Your task to perform on an android device: Go to Google maps Image 0: 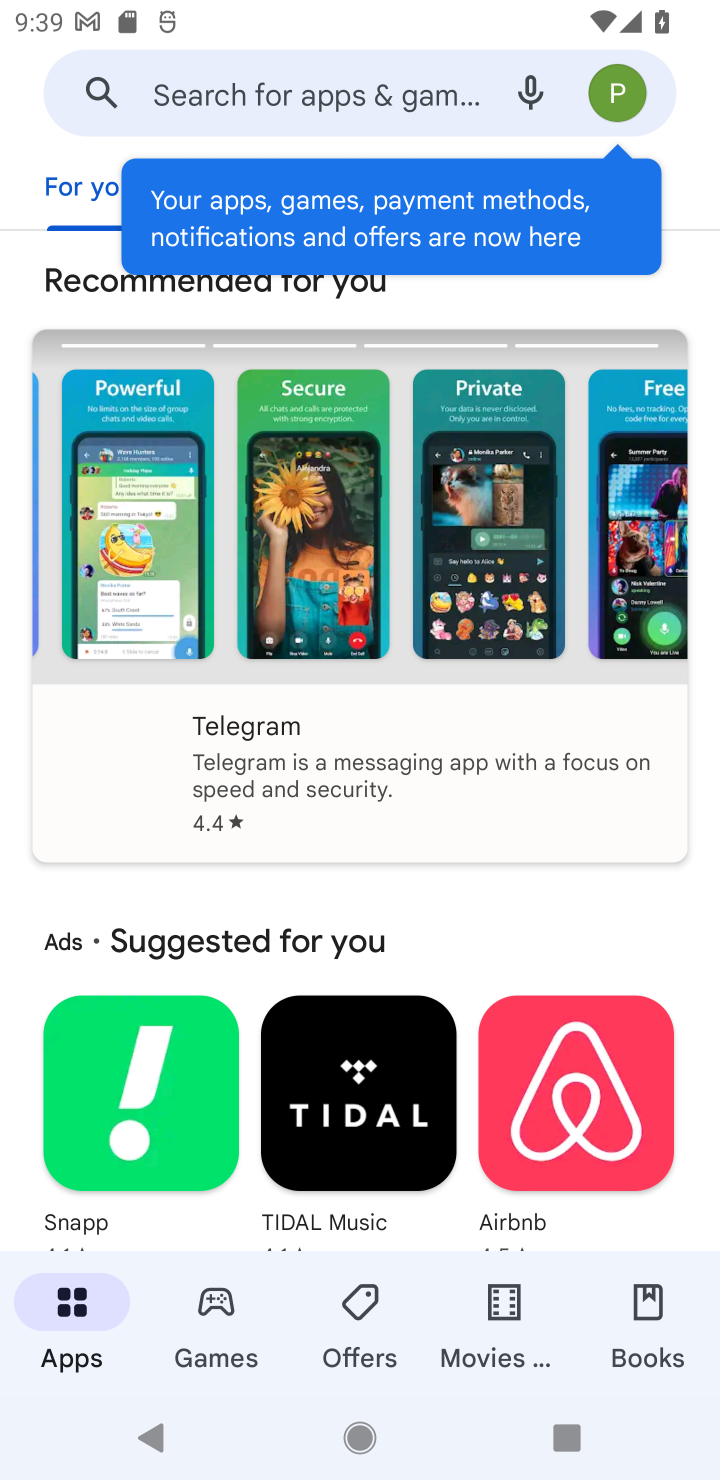
Step 0: press back button
Your task to perform on an android device: Go to Google maps Image 1: 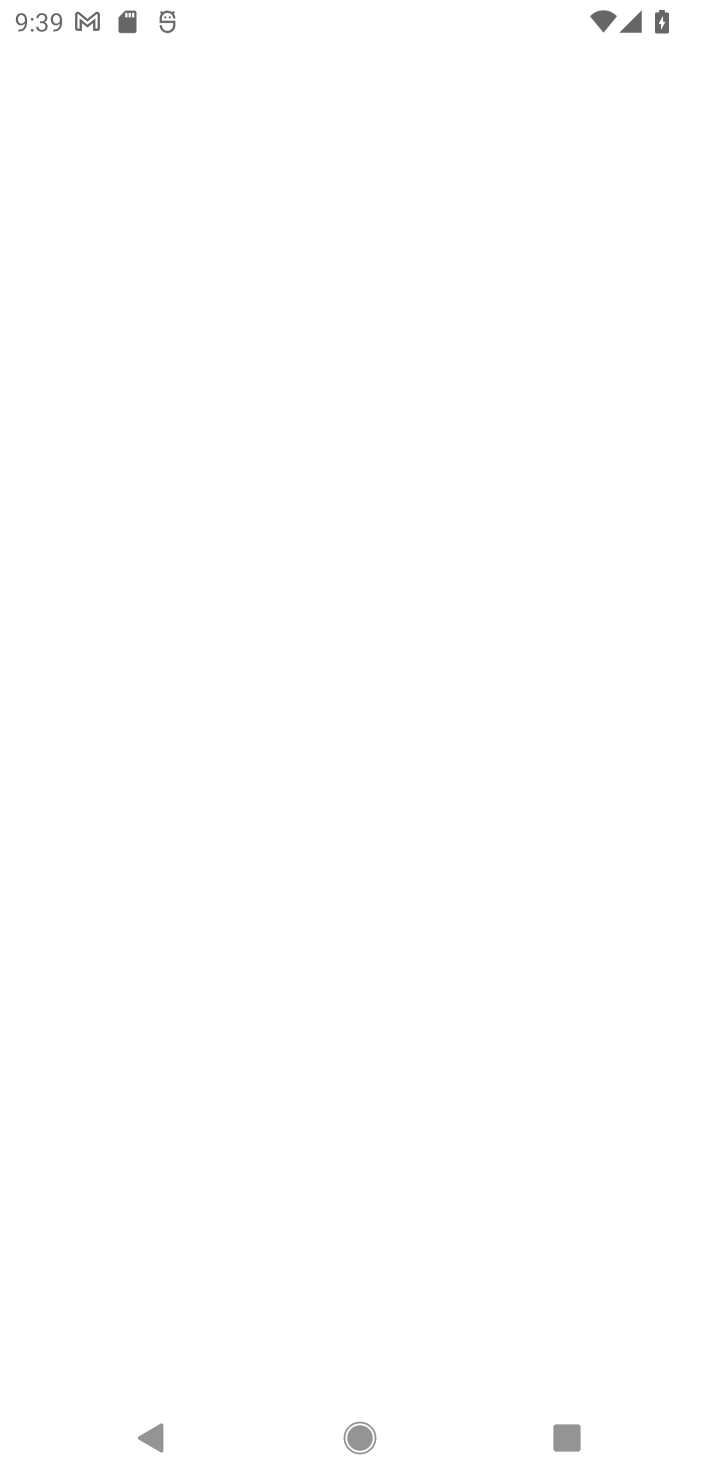
Step 1: press back button
Your task to perform on an android device: Go to Google maps Image 2: 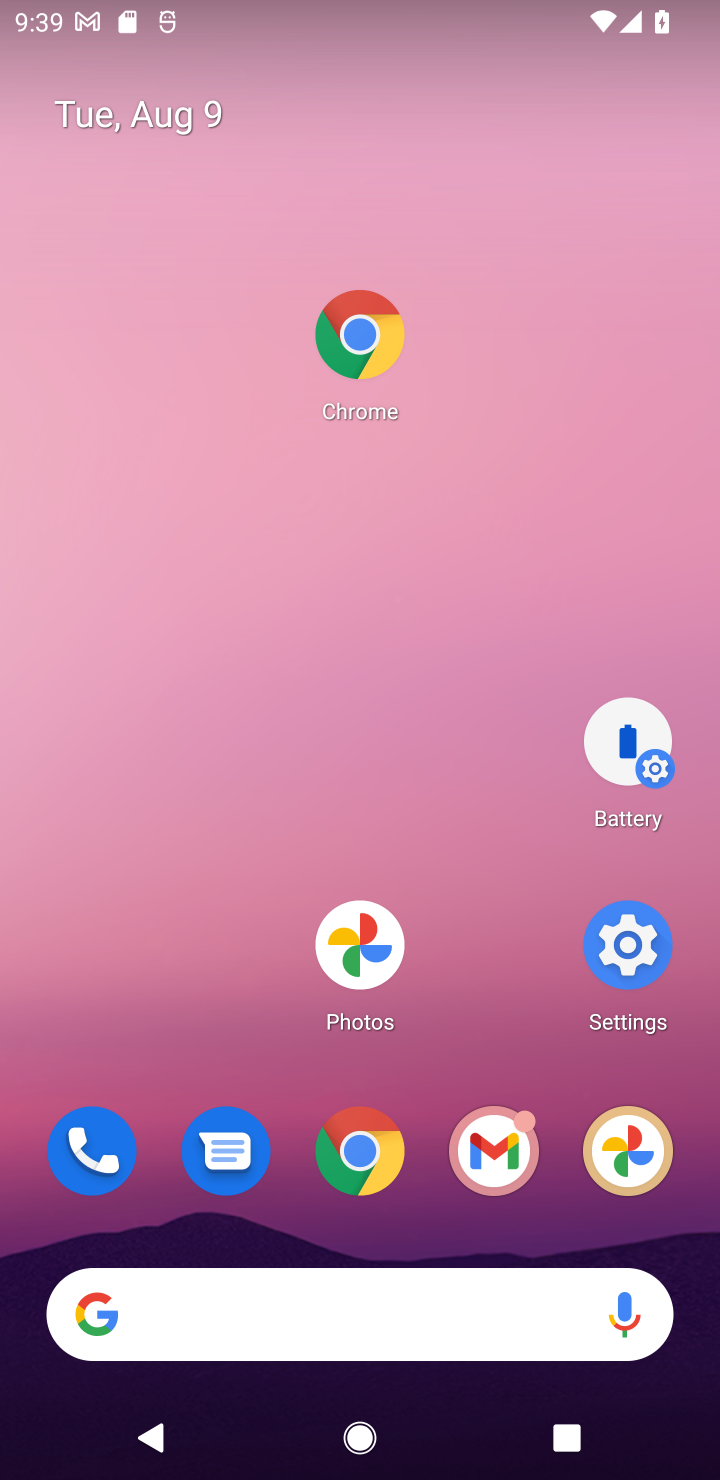
Step 2: press back button
Your task to perform on an android device: Go to Google maps Image 3: 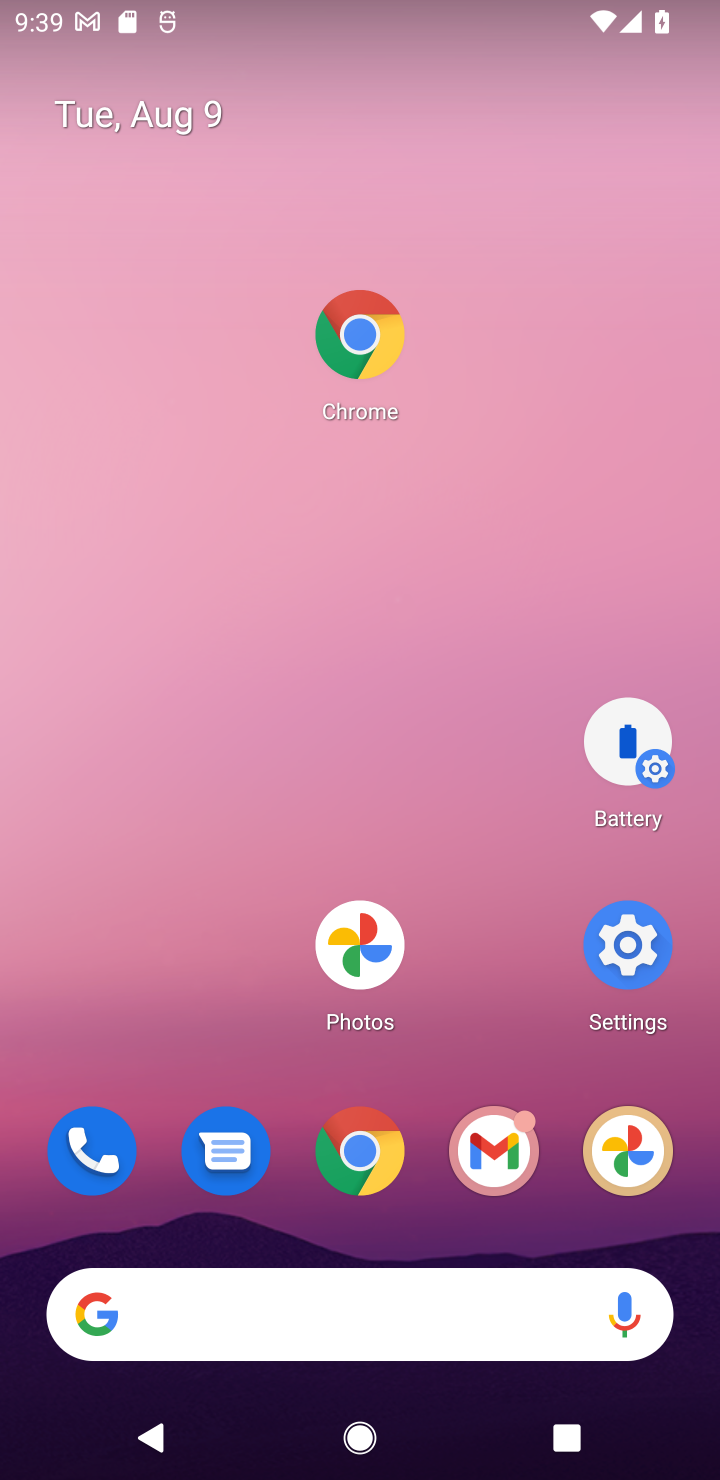
Step 3: drag from (212, 155) to (363, 290)
Your task to perform on an android device: Go to Google maps Image 4: 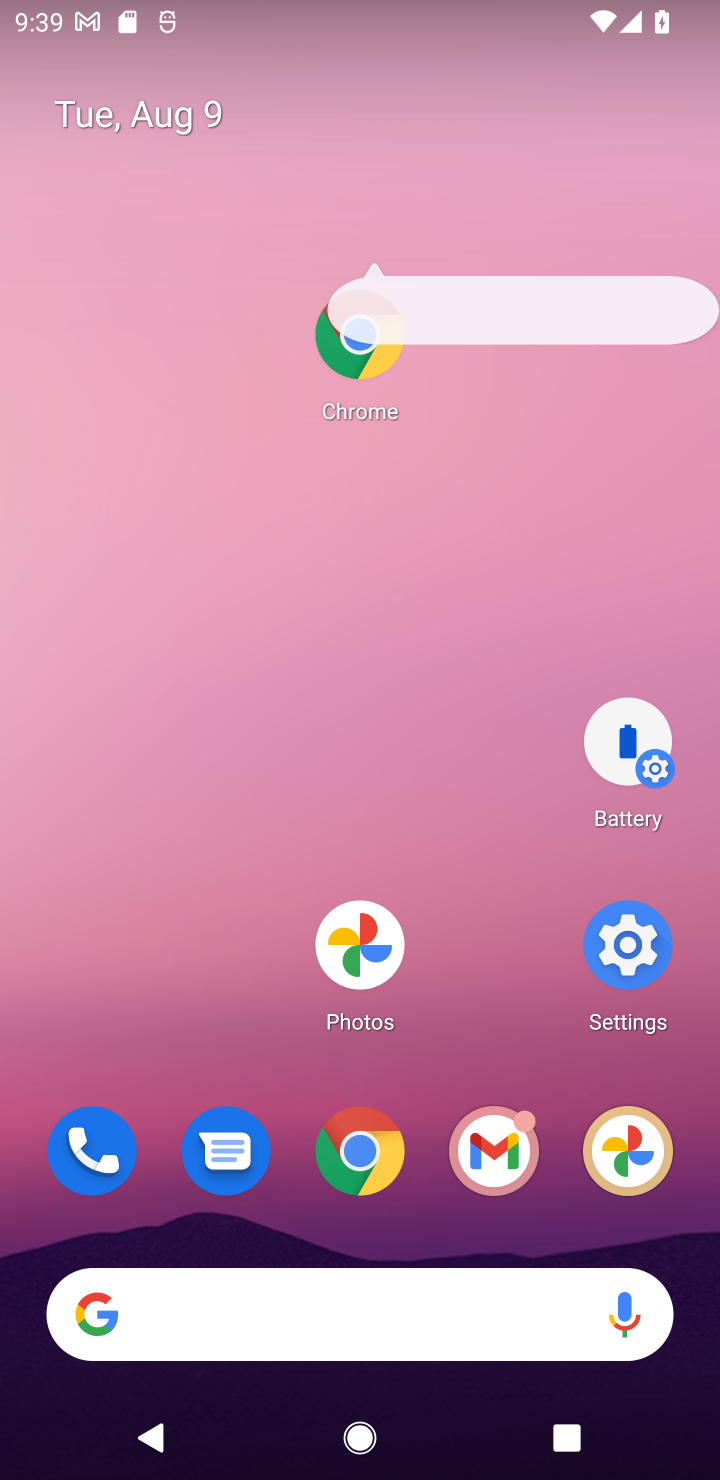
Step 4: drag from (396, 968) to (281, 501)
Your task to perform on an android device: Go to Google maps Image 5: 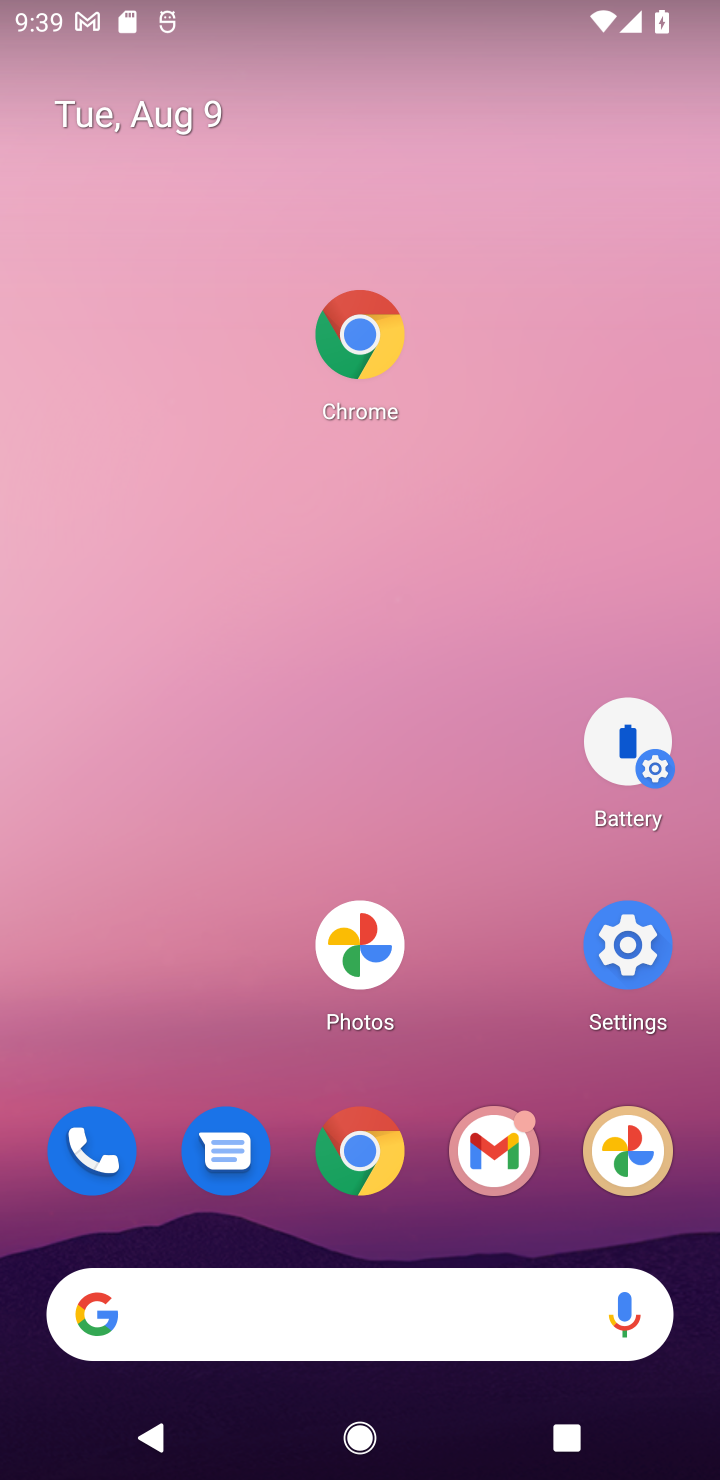
Step 5: drag from (447, 1006) to (402, 464)
Your task to perform on an android device: Go to Google maps Image 6: 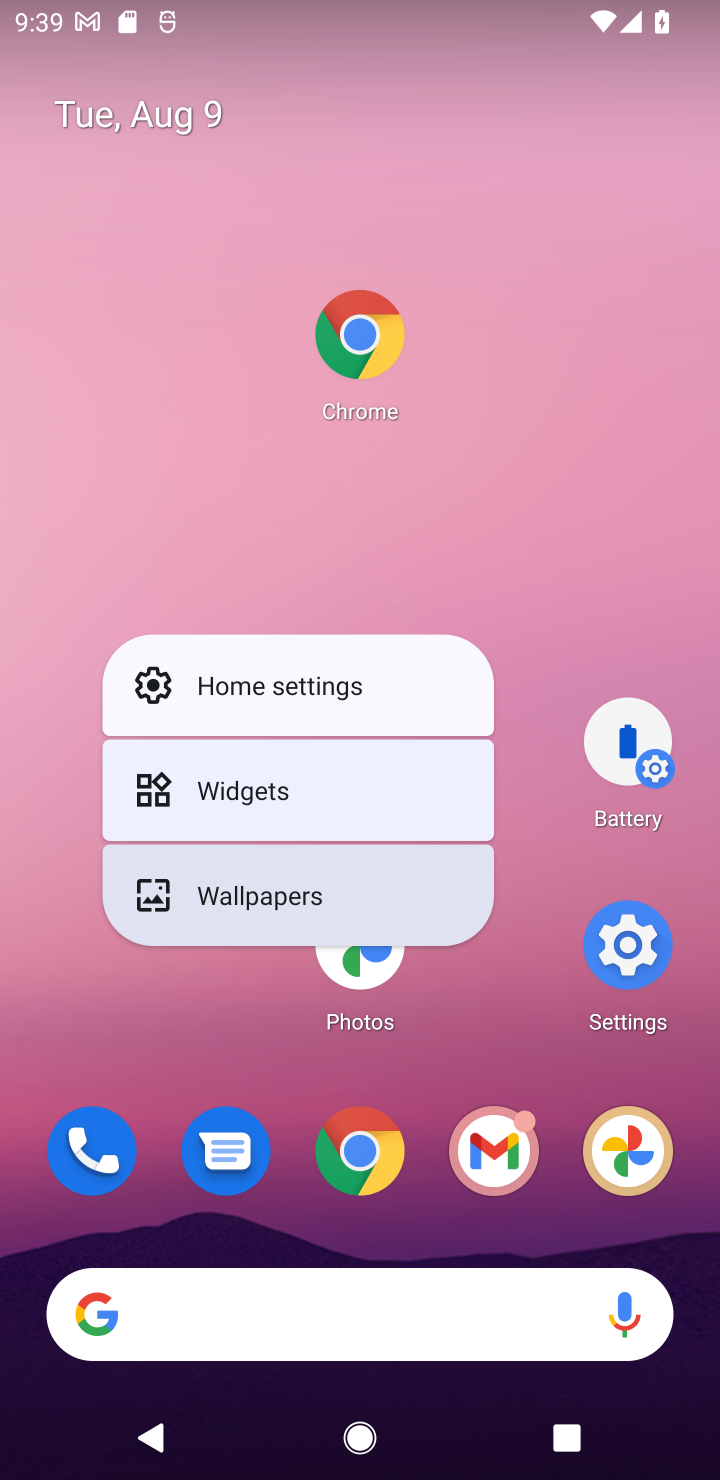
Step 6: drag from (260, 1306) to (369, 66)
Your task to perform on an android device: Go to Google maps Image 7: 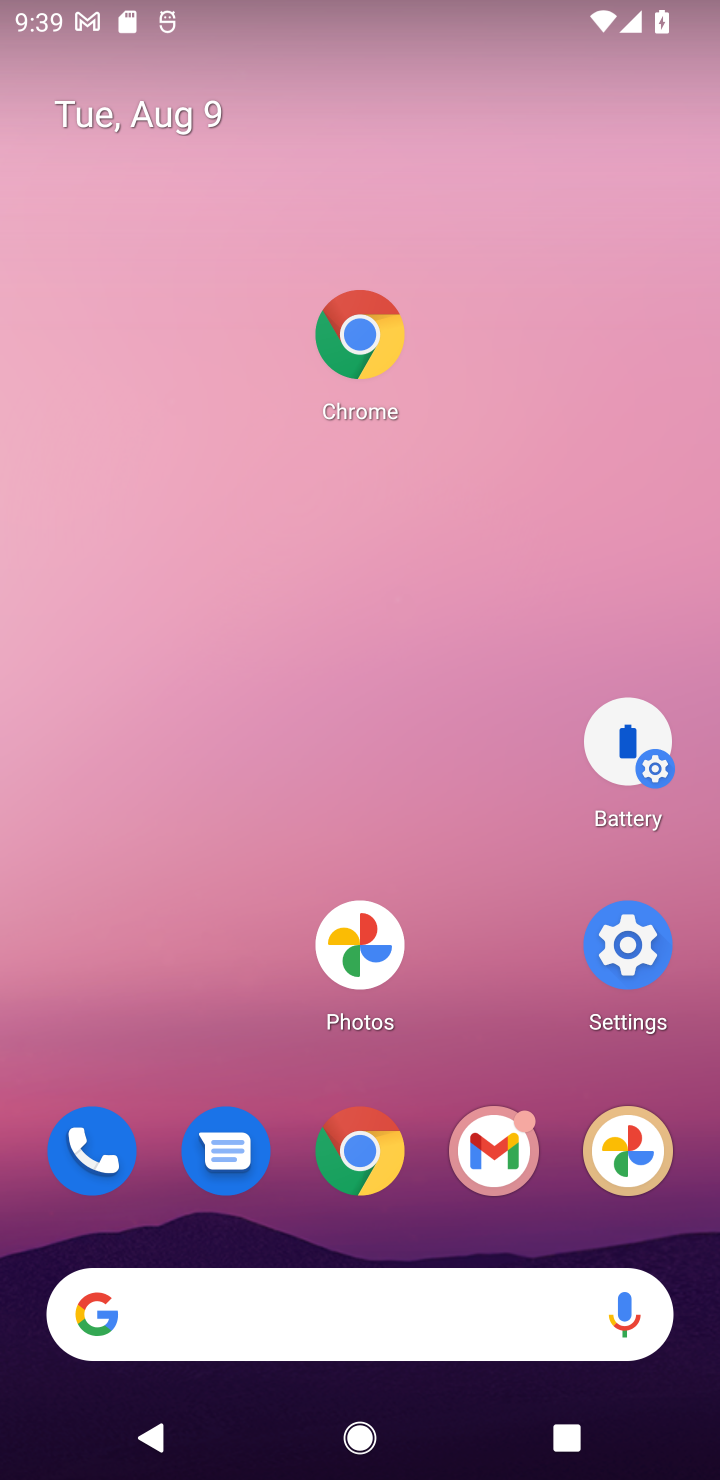
Step 7: drag from (199, 115) to (226, 303)
Your task to perform on an android device: Go to Google maps Image 8: 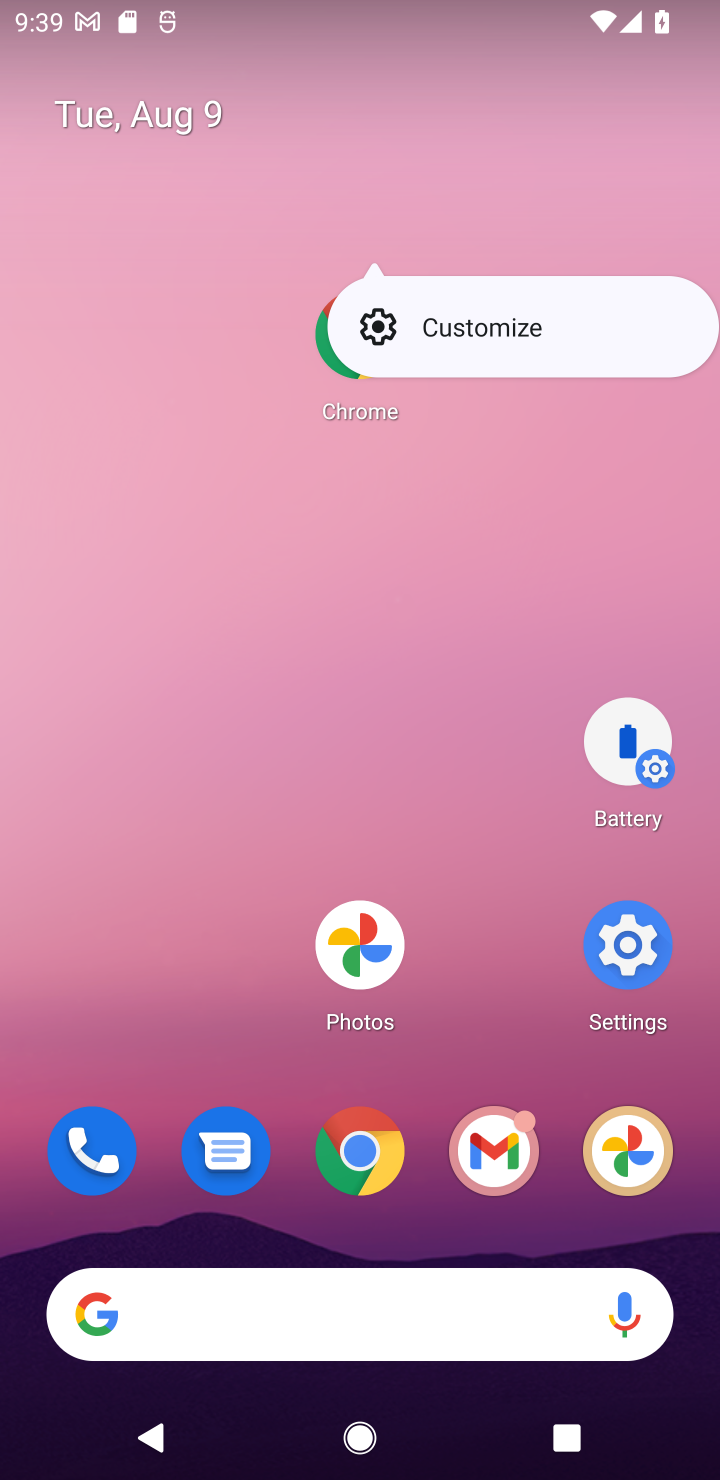
Step 8: drag from (282, 75) to (370, 280)
Your task to perform on an android device: Go to Google maps Image 9: 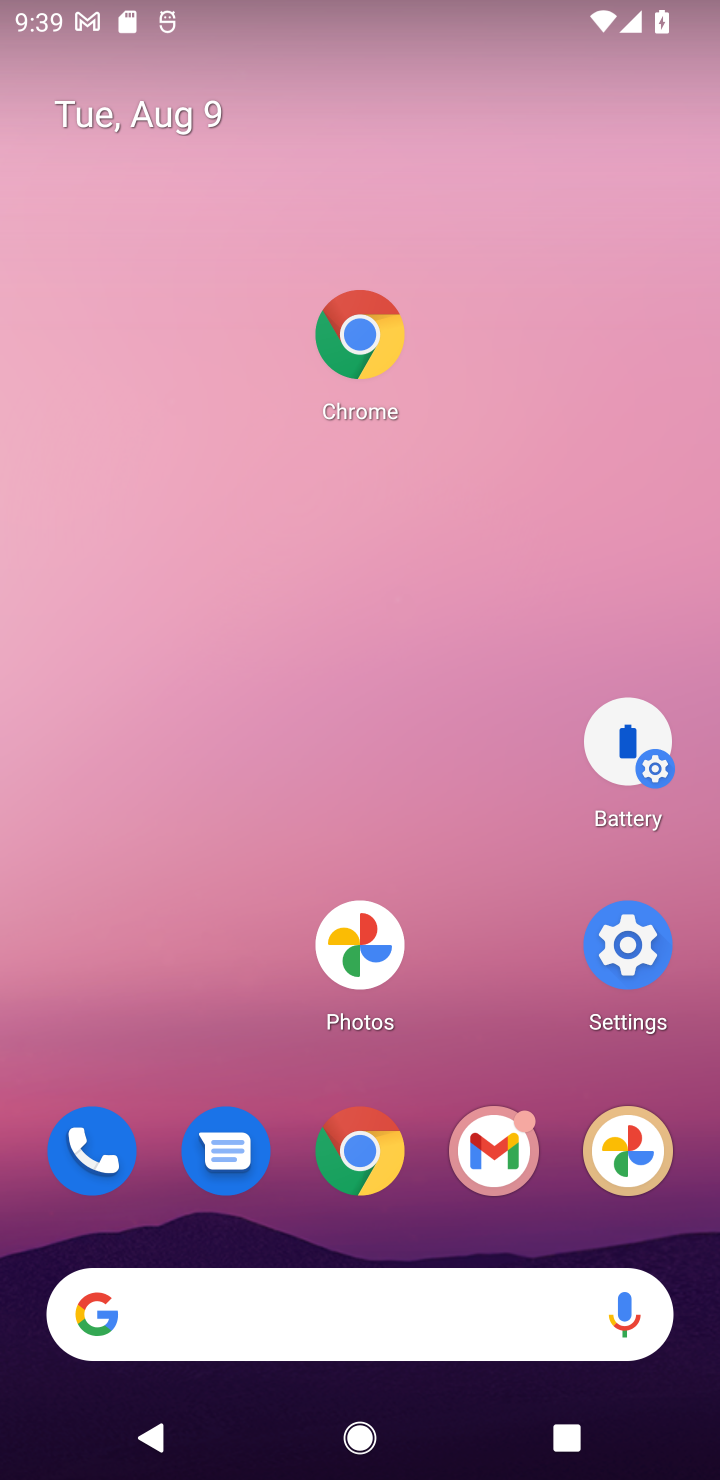
Step 9: click (293, 40)
Your task to perform on an android device: Go to Google maps Image 10: 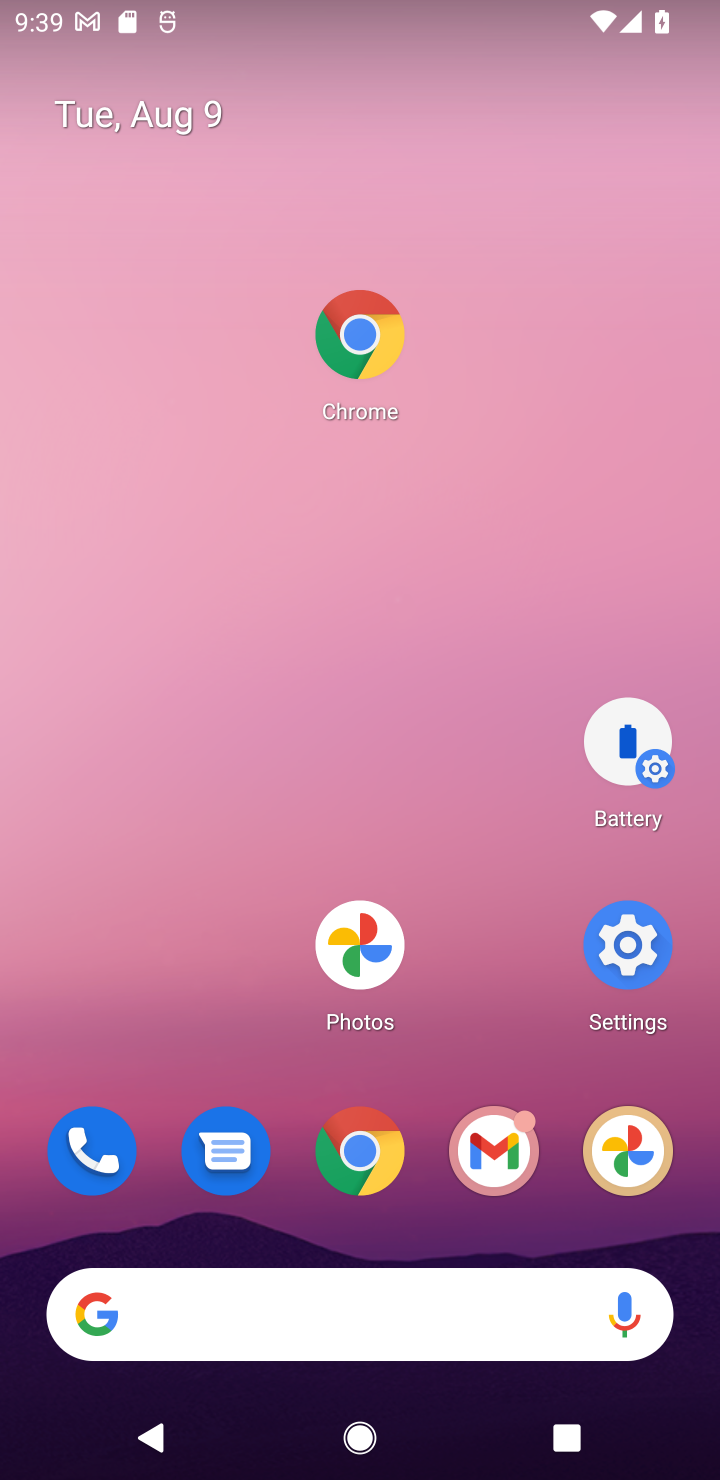
Step 10: drag from (253, 153) to (85, 269)
Your task to perform on an android device: Go to Google maps Image 11: 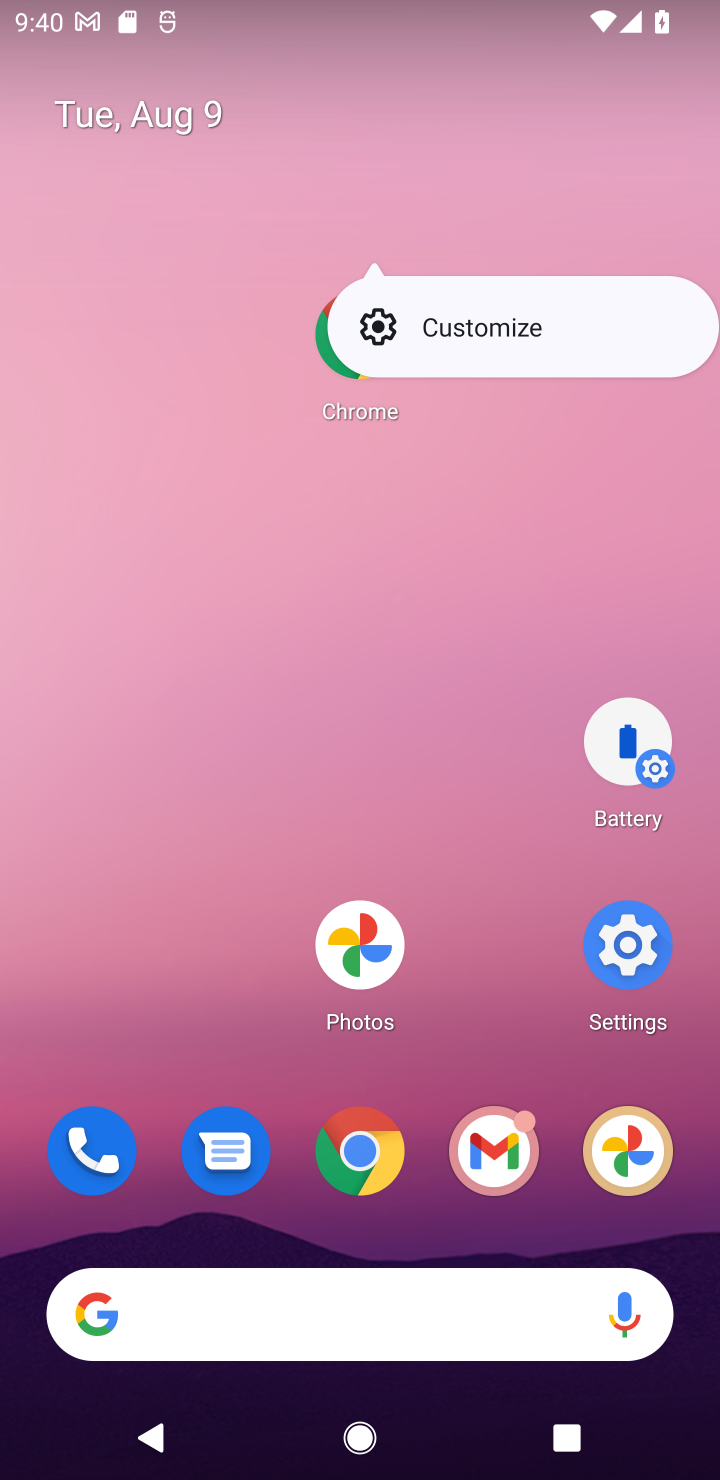
Step 11: drag from (38, 359) to (465, 281)
Your task to perform on an android device: Go to Google maps Image 12: 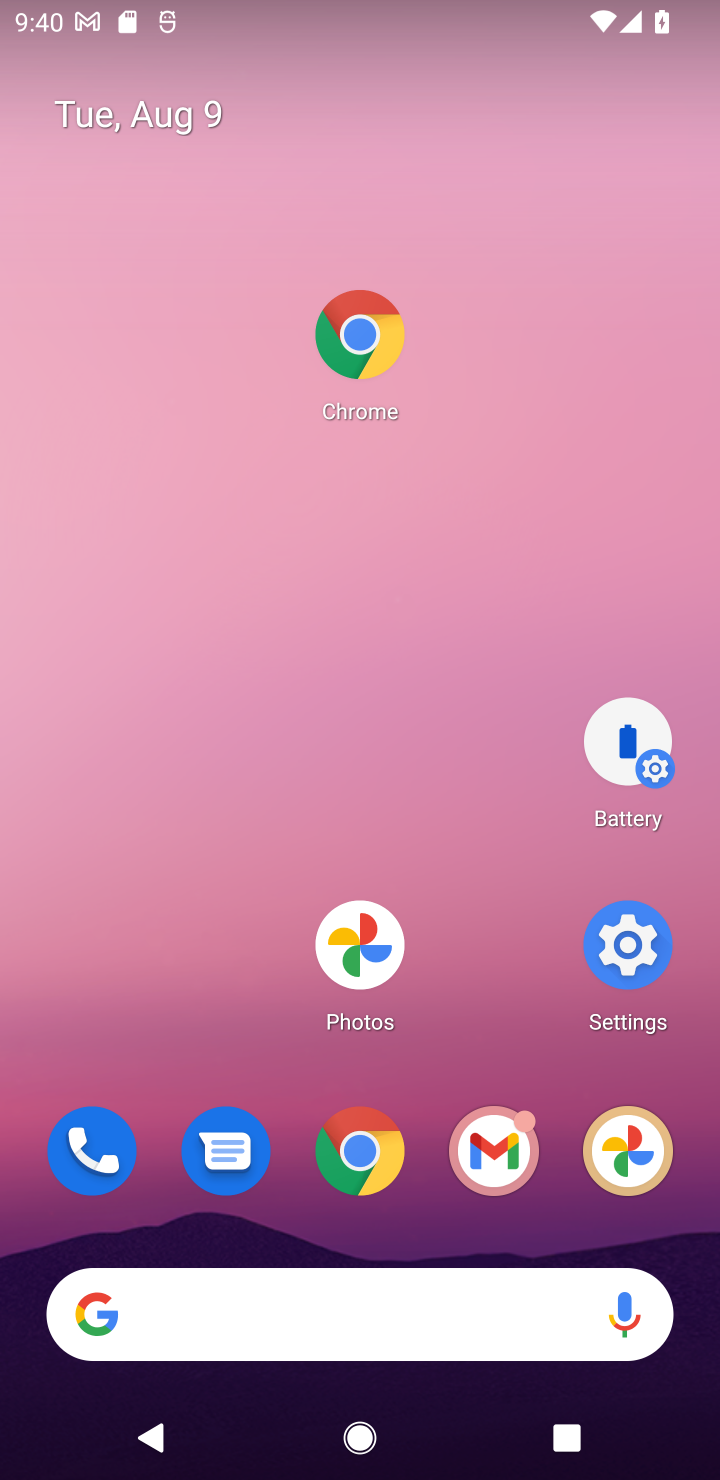
Step 12: drag from (527, 993) to (394, 513)
Your task to perform on an android device: Go to Google maps Image 13: 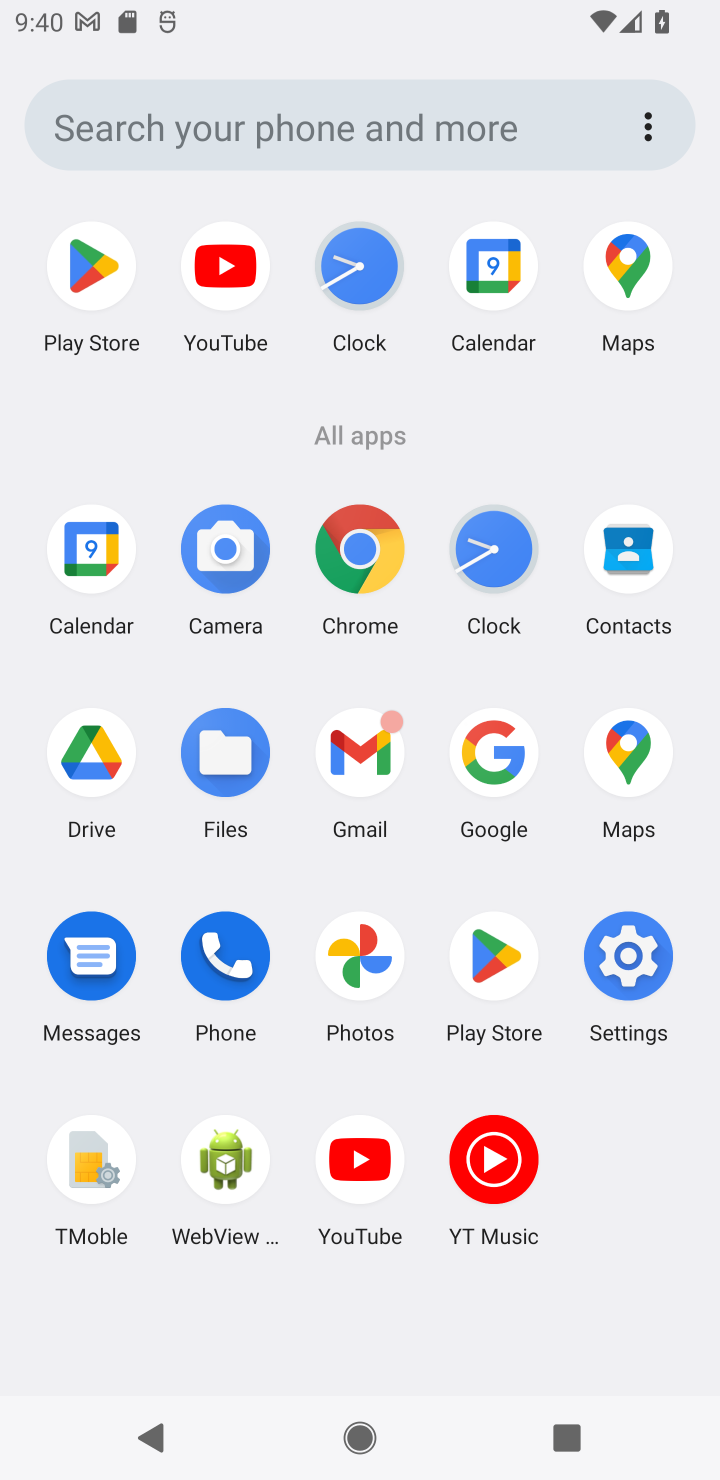
Step 13: click (638, 780)
Your task to perform on an android device: Go to Google maps Image 14: 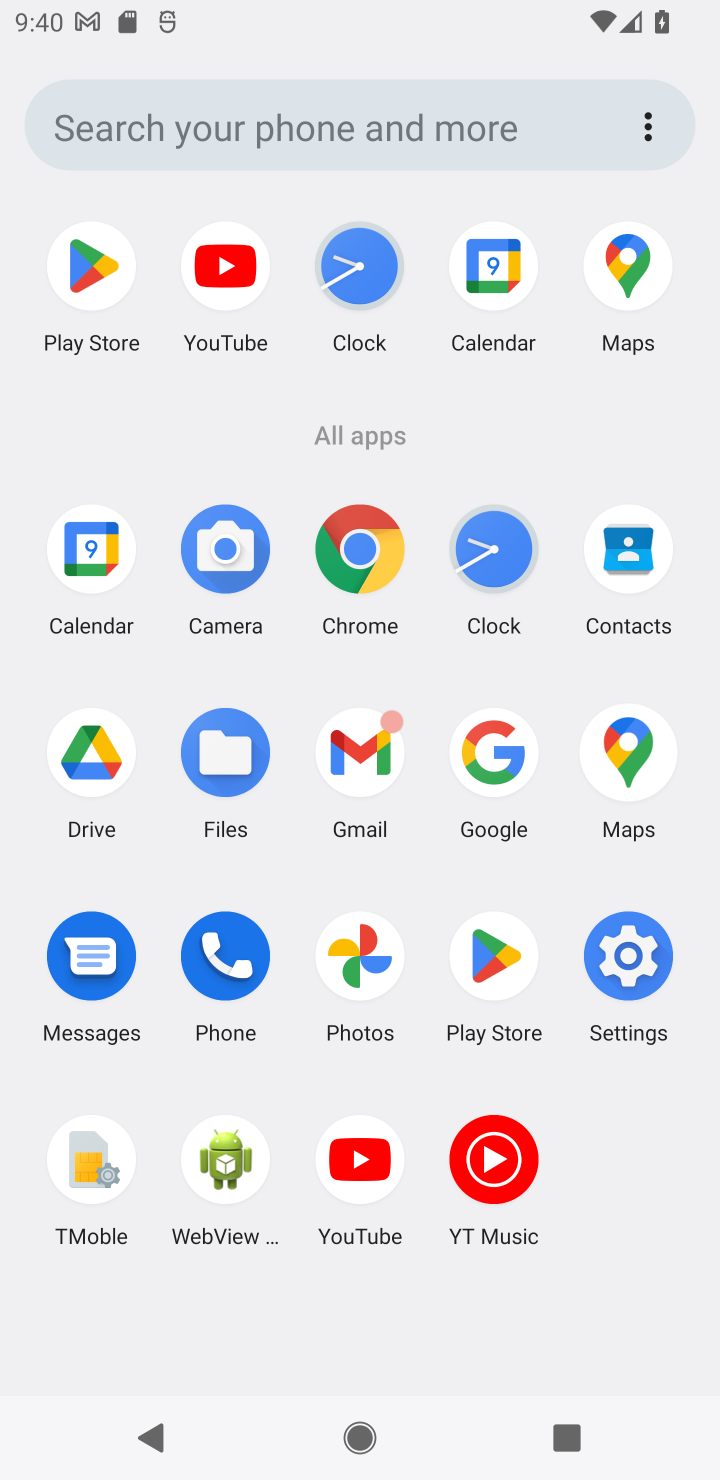
Step 14: click (632, 772)
Your task to perform on an android device: Go to Google maps Image 15: 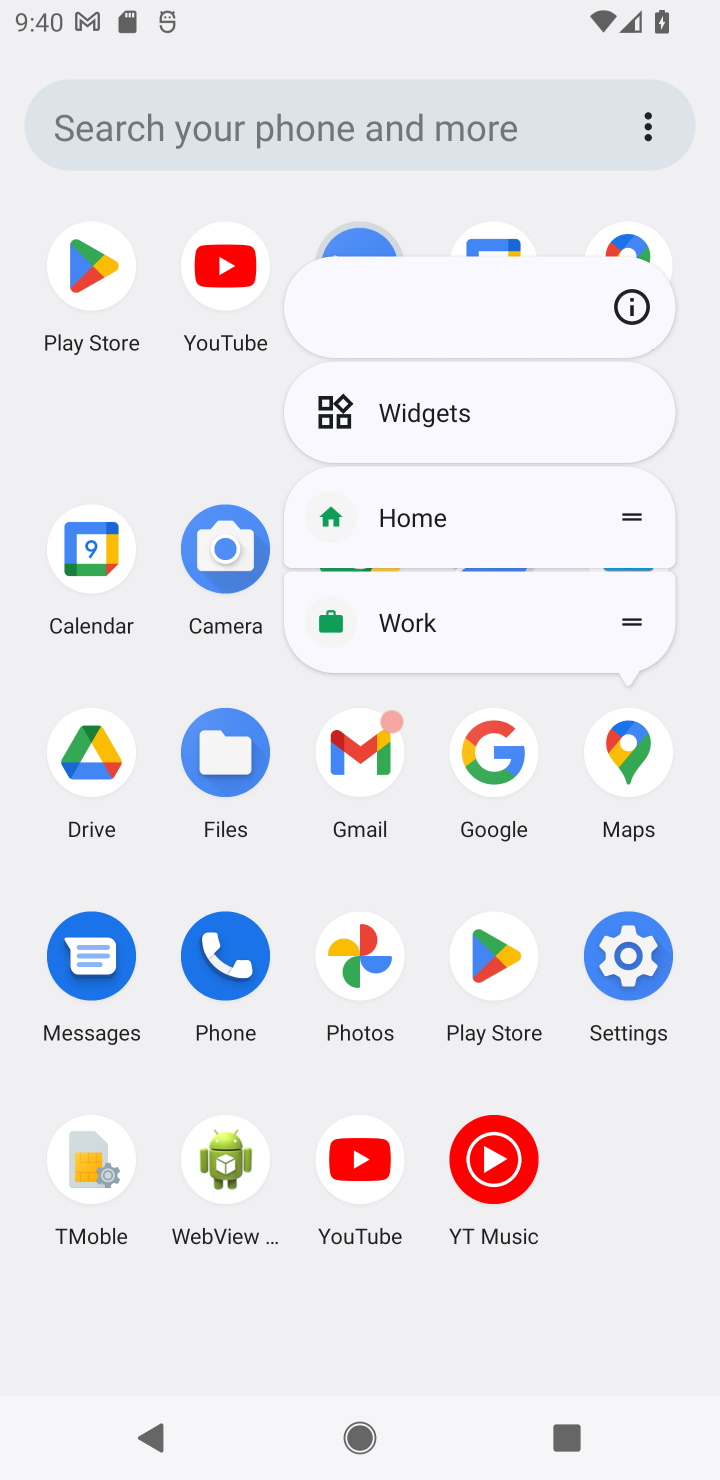
Step 15: click (632, 772)
Your task to perform on an android device: Go to Google maps Image 16: 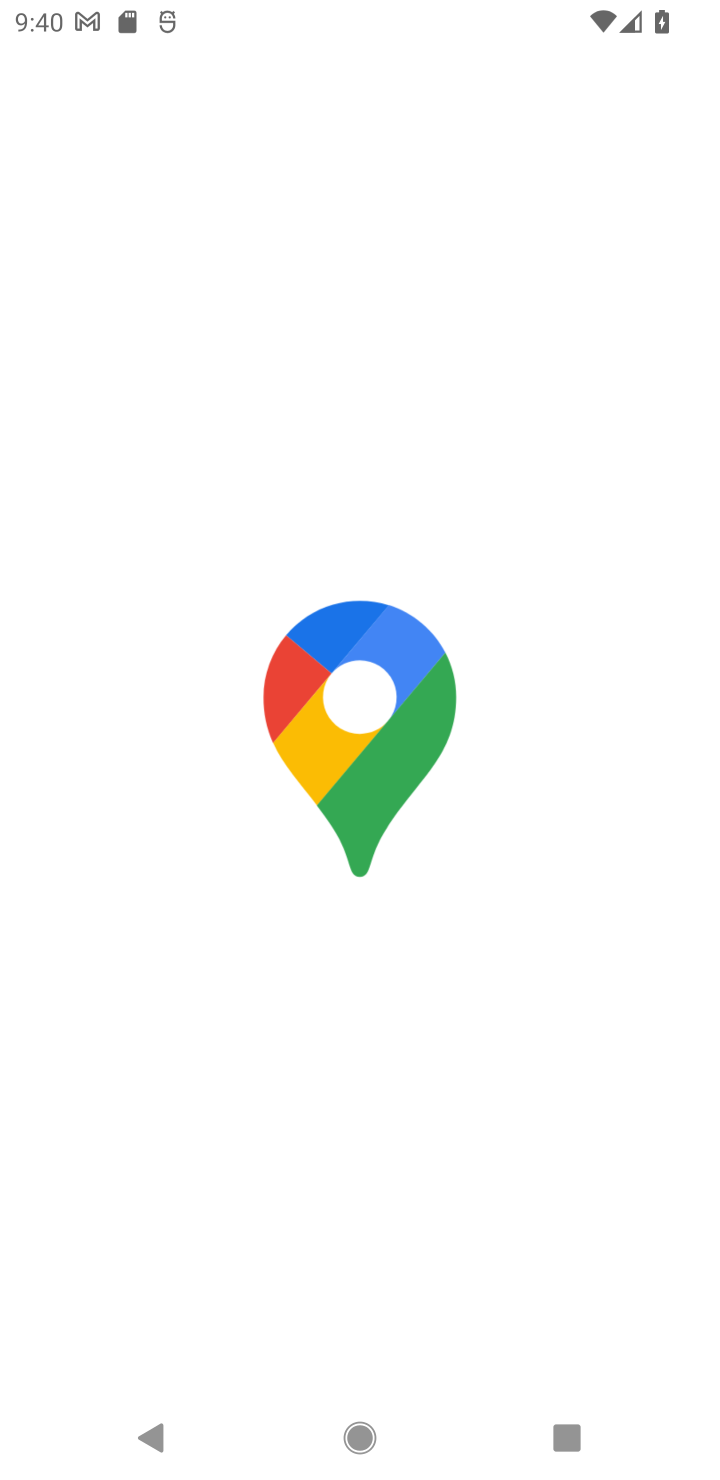
Step 16: click (377, 691)
Your task to perform on an android device: Go to Google maps Image 17: 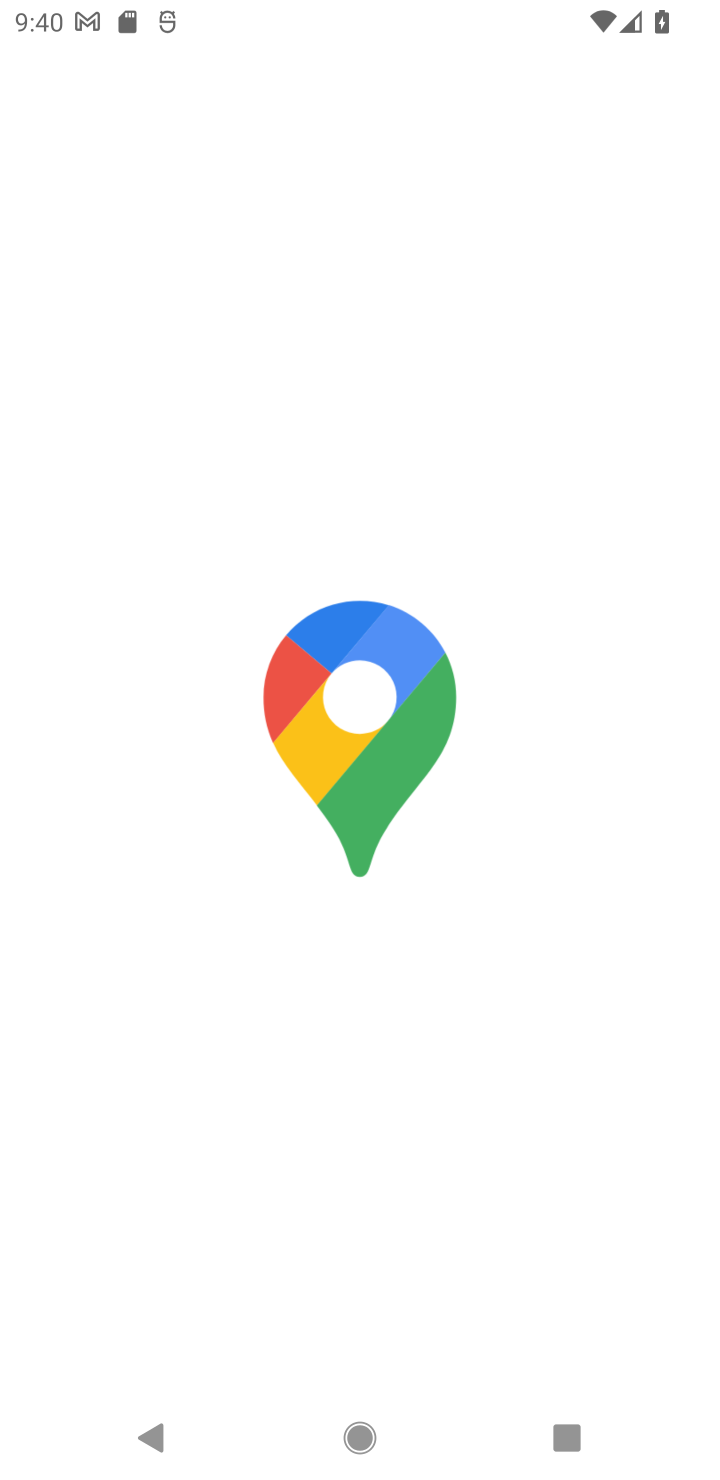
Step 17: click (384, 703)
Your task to perform on an android device: Go to Google maps Image 18: 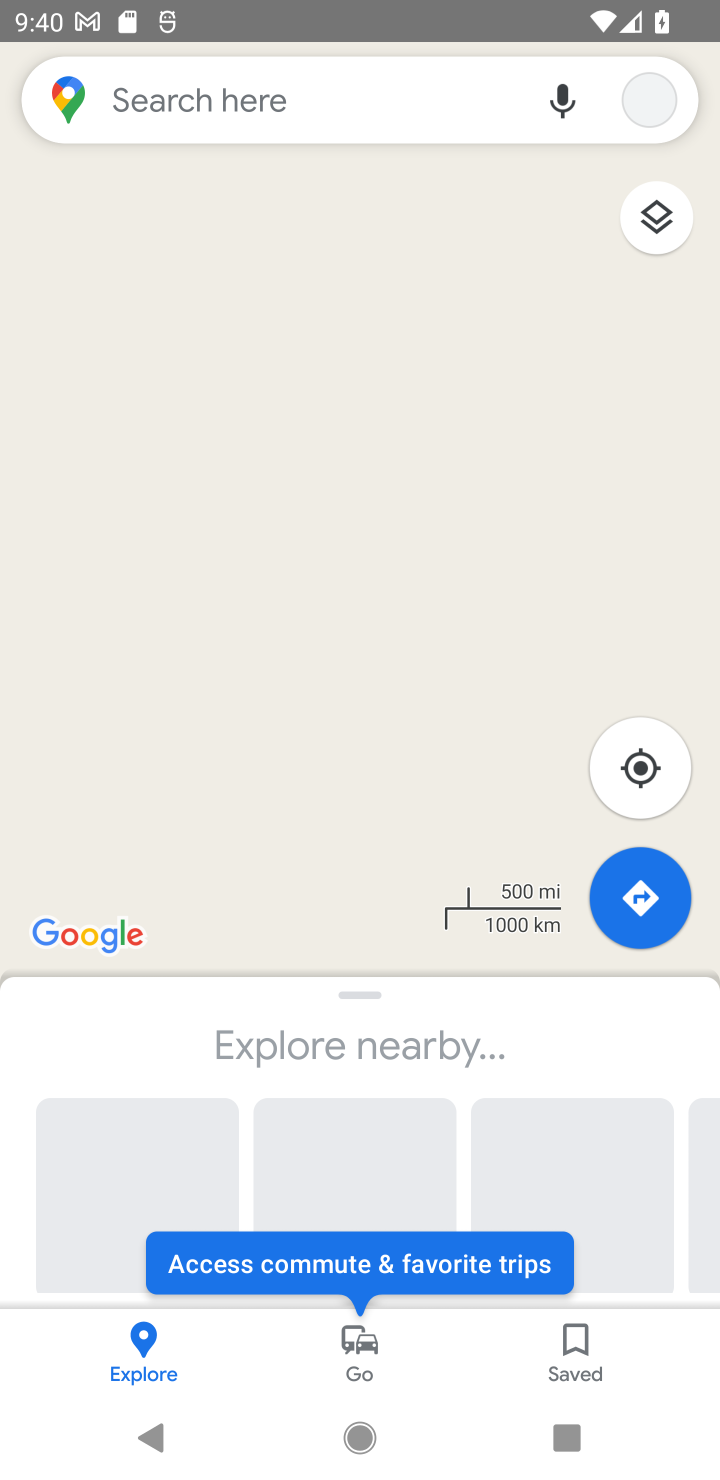
Step 18: task complete